Your task to perform on an android device: Open maps Image 0: 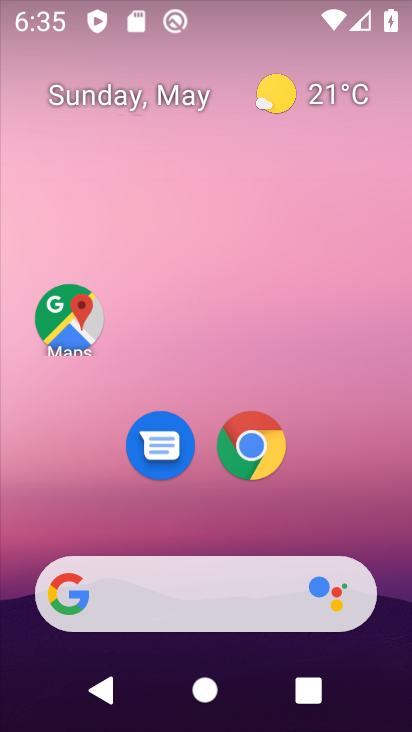
Step 0: click (74, 317)
Your task to perform on an android device: Open maps Image 1: 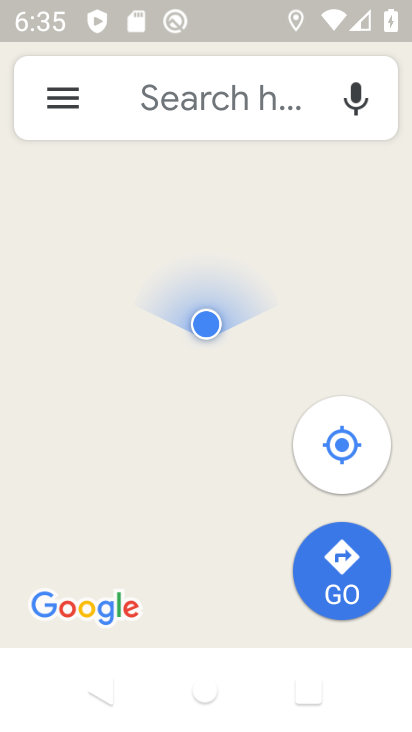
Step 1: task complete